Your task to perform on an android device: Go to Amazon Image 0: 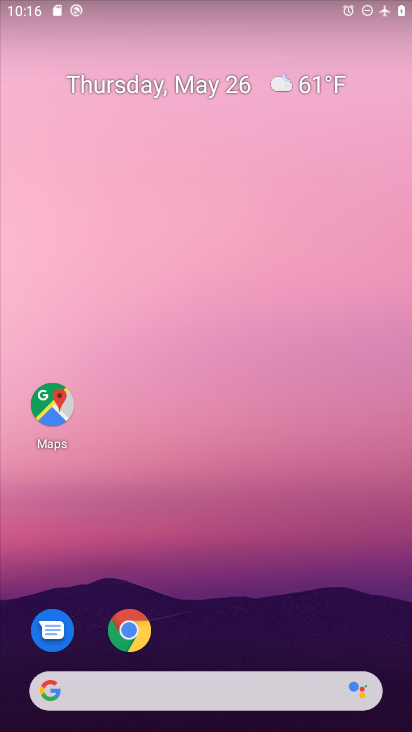
Step 0: click (149, 638)
Your task to perform on an android device: Go to Amazon Image 1: 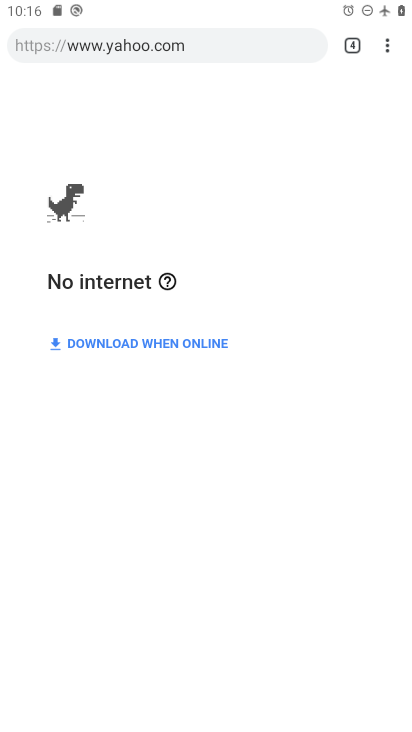
Step 1: click (354, 38)
Your task to perform on an android device: Go to Amazon Image 2: 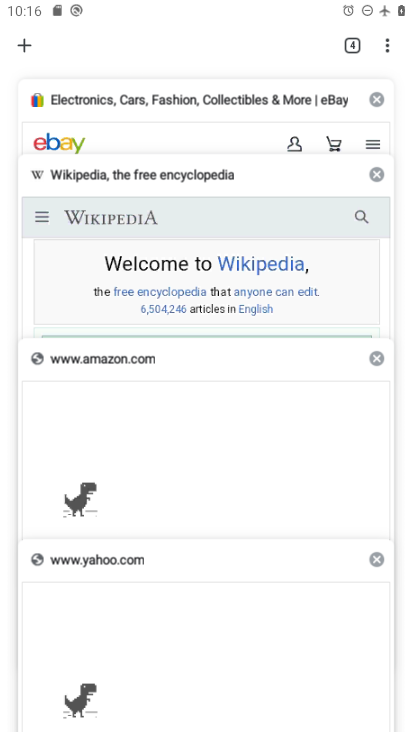
Step 2: click (15, 25)
Your task to perform on an android device: Go to Amazon Image 3: 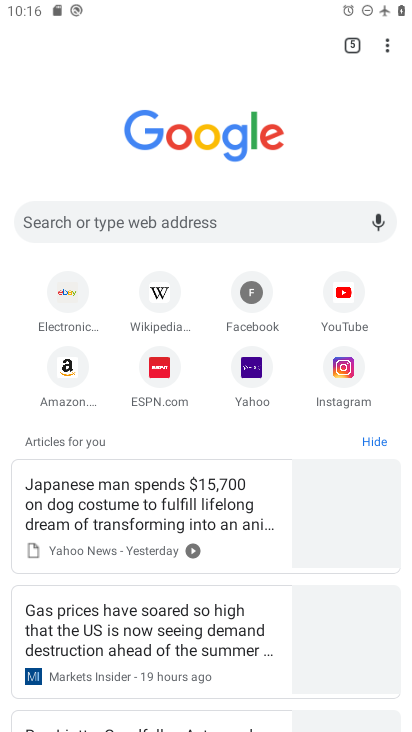
Step 3: click (55, 369)
Your task to perform on an android device: Go to Amazon Image 4: 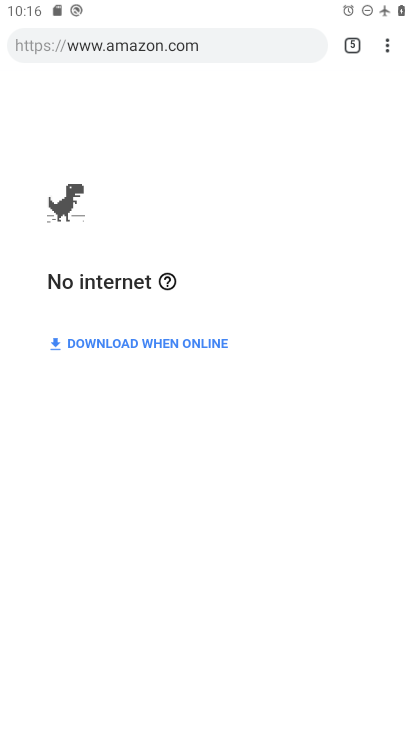
Step 4: task complete